Your task to perform on an android device: snooze an email in the gmail app Image 0: 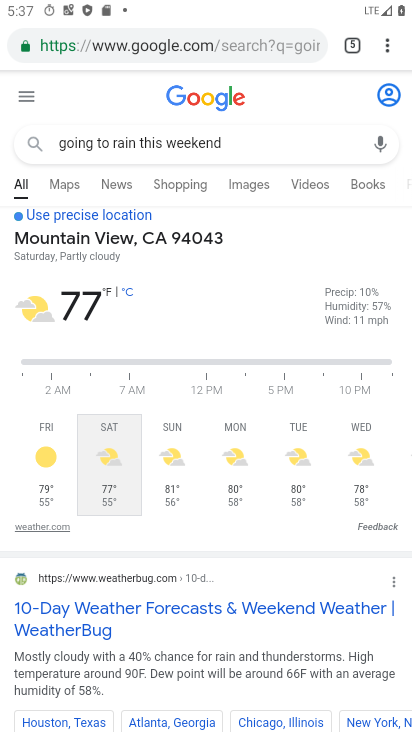
Step 0: press home button
Your task to perform on an android device: snooze an email in the gmail app Image 1: 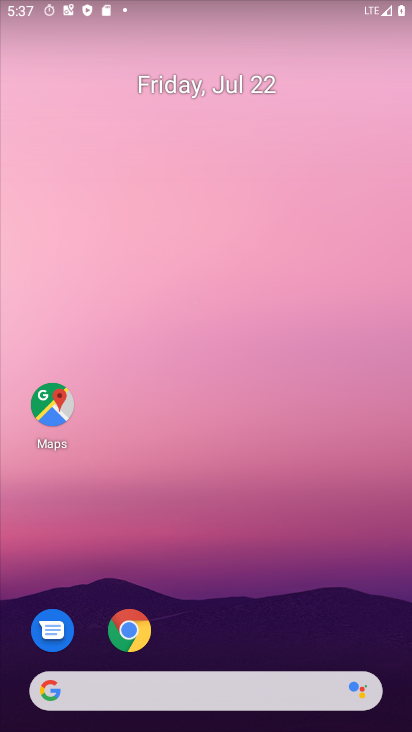
Step 1: drag from (247, 650) to (109, 1)
Your task to perform on an android device: snooze an email in the gmail app Image 2: 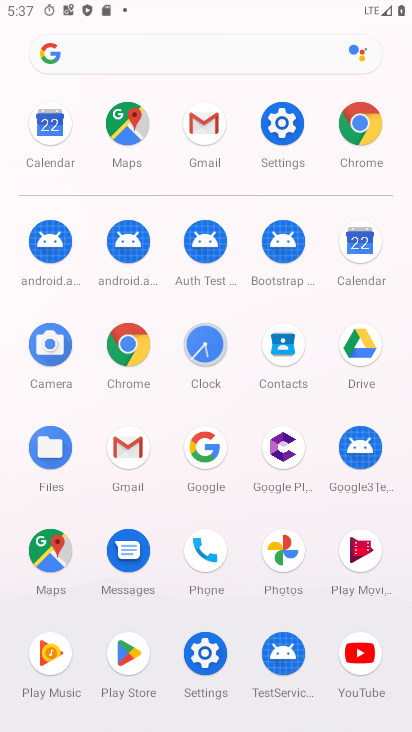
Step 2: click (139, 455)
Your task to perform on an android device: snooze an email in the gmail app Image 3: 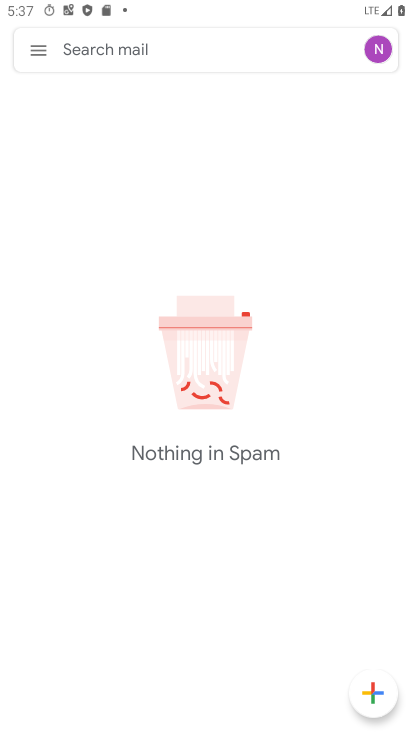
Step 3: click (48, 48)
Your task to perform on an android device: snooze an email in the gmail app Image 4: 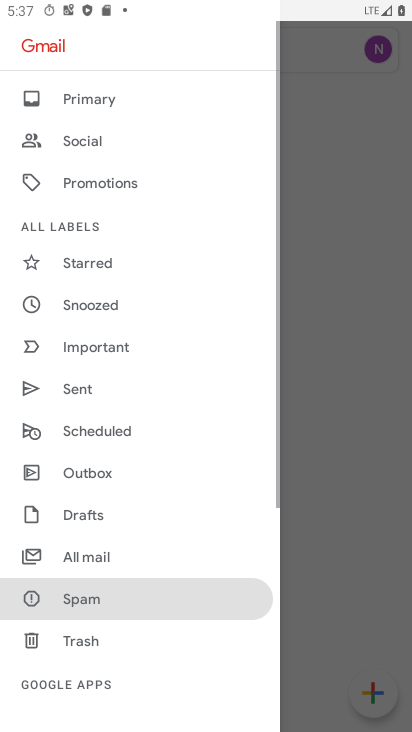
Step 4: click (75, 310)
Your task to perform on an android device: snooze an email in the gmail app Image 5: 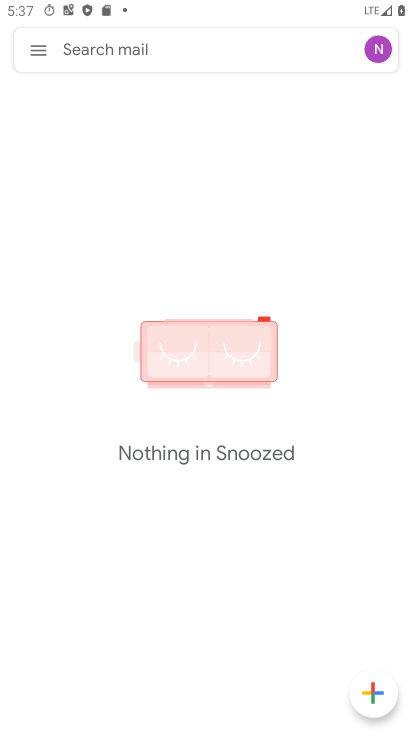
Step 5: task complete